Your task to perform on an android device: toggle show notifications on the lock screen Image 0: 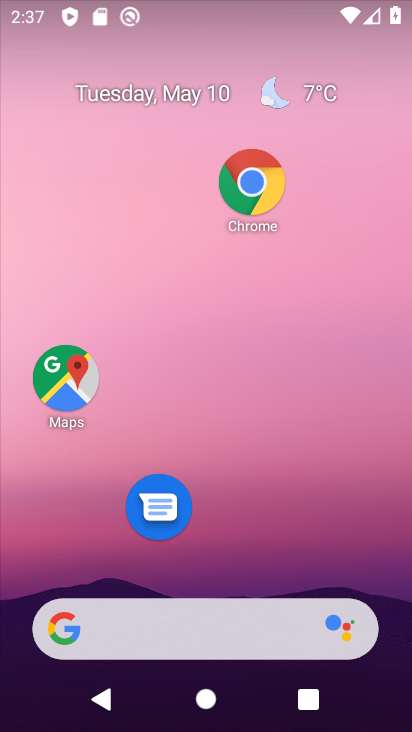
Step 0: drag from (347, 569) to (397, 158)
Your task to perform on an android device: toggle show notifications on the lock screen Image 1: 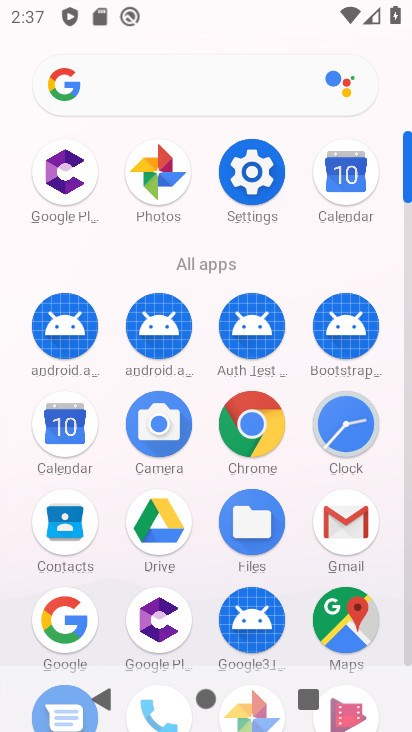
Step 1: click (244, 212)
Your task to perform on an android device: toggle show notifications on the lock screen Image 2: 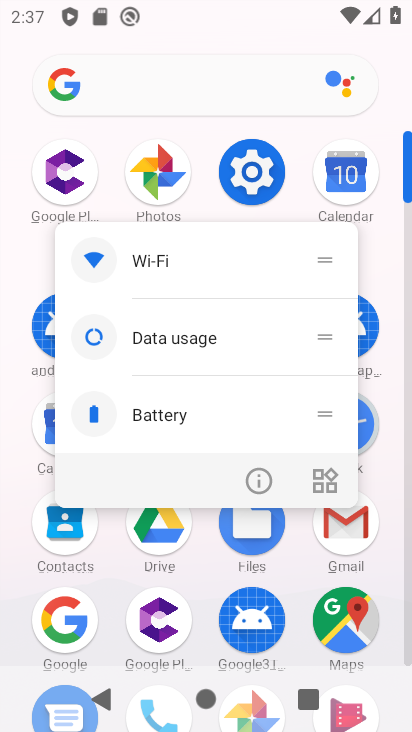
Step 2: click (241, 151)
Your task to perform on an android device: toggle show notifications on the lock screen Image 3: 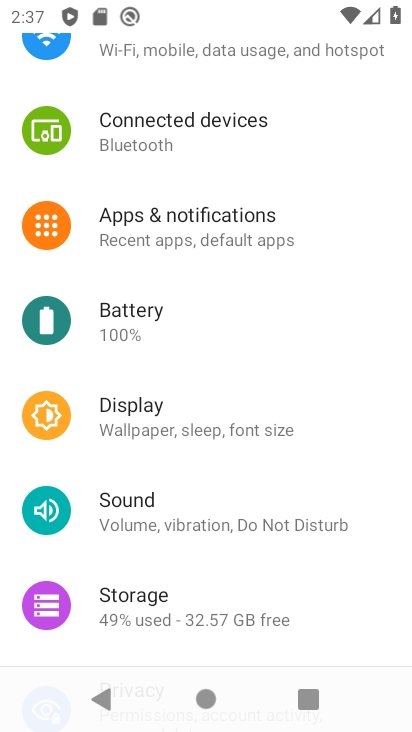
Step 3: click (176, 213)
Your task to perform on an android device: toggle show notifications on the lock screen Image 4: 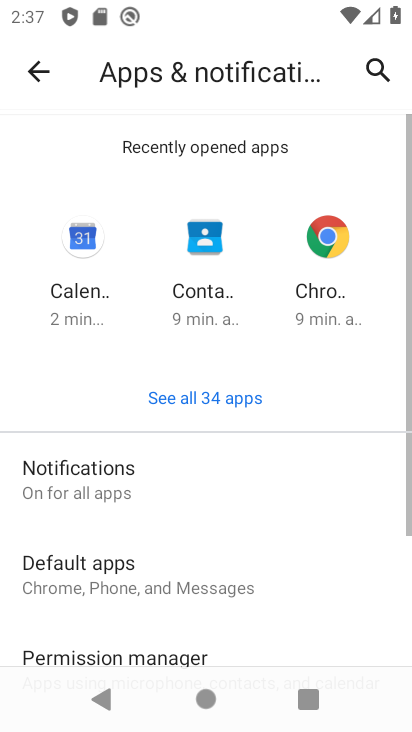
Step 4: click (189, 461)
Your task to perform on an android device: toggle show notifications on the lock screen Image 5: 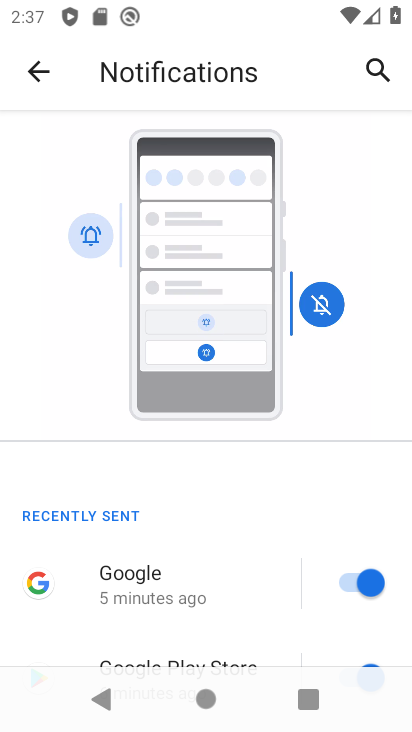
Step 5: drag from (248, 492) to (232, 198)
Your task to perform on an android device: toggle show notifications on the lock screen Image 6: 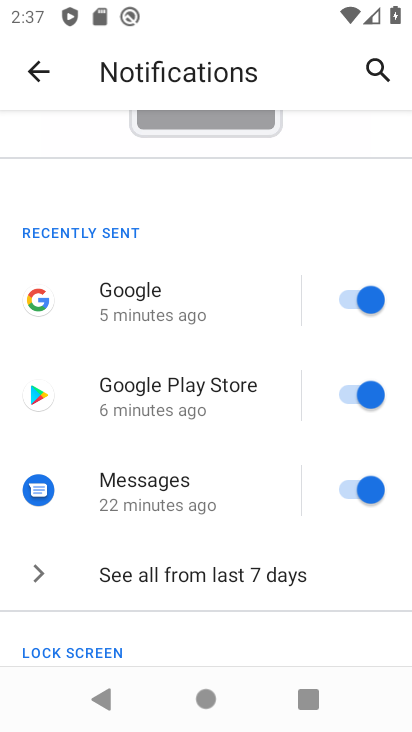
Step 6: click (231, 568)
Your task to perform on an android device: toggle show notifications on the lock screen Image 7: 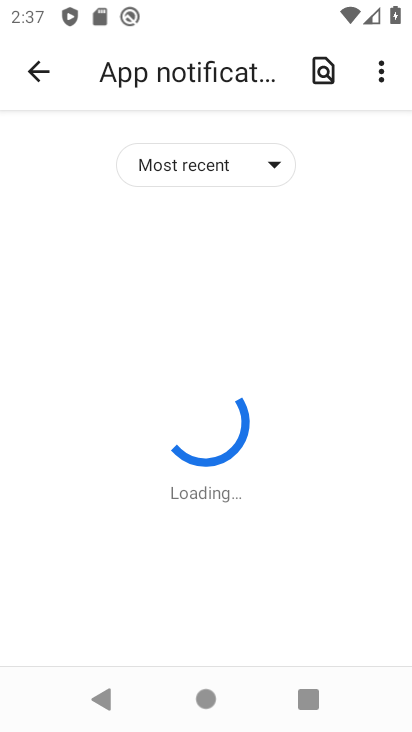
Step 7: drag from (231, 568) to (227, 300)
Your task to perform on an android device: toggle show notifications on the lock screen Image 8: 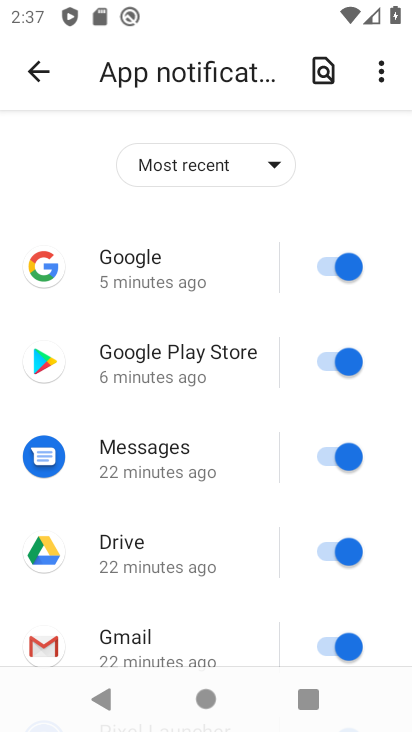
Step 8: drag from (198, 576) to (219, 161)
Your task to perform on an android device: toggle show notifications on the lock screen Image 9: 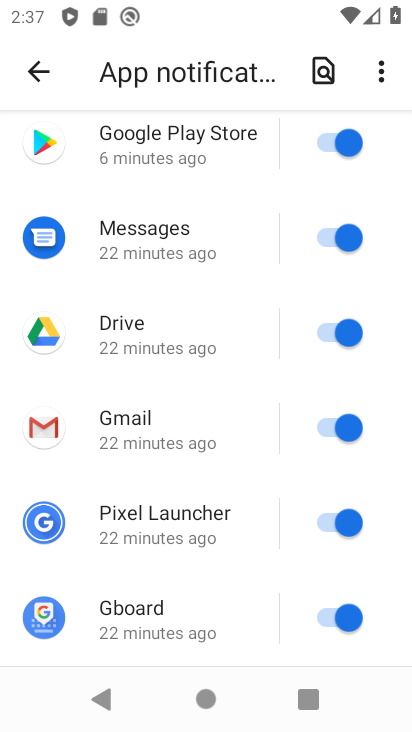
Step 9: click (42, 72)
Your task to perform on an android device: toggle show notifications on the lock screen Image 10: 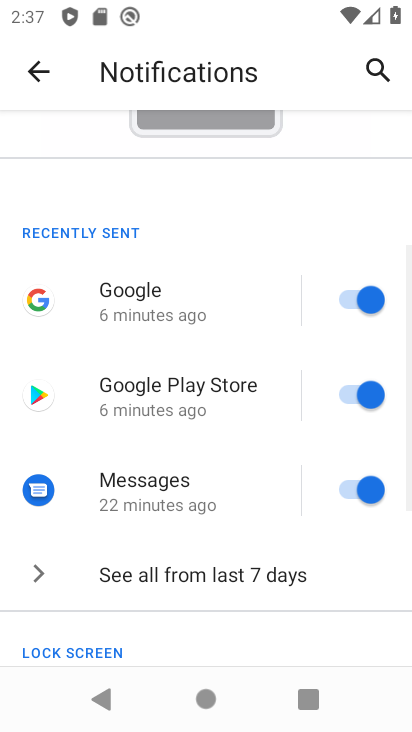
Step 10: drag from (147, 569) to (114, 281)
Your task to perform on an android device: toggle show notifications on the lock screen Image 11: 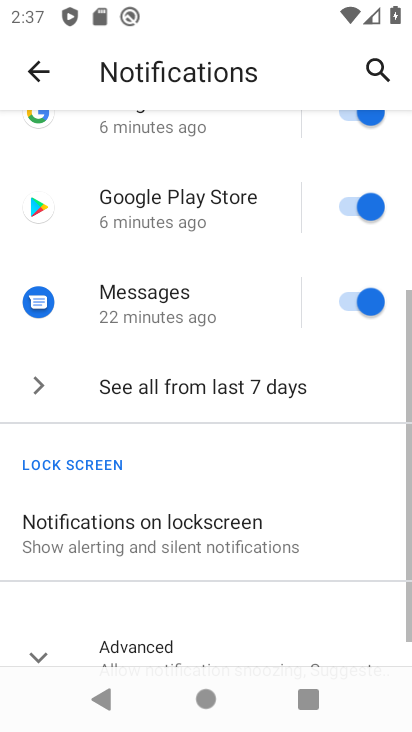
Step 11: click (114, 281)
Your task to perform on an android device: toggle show notifications on the lock screen Image 12: 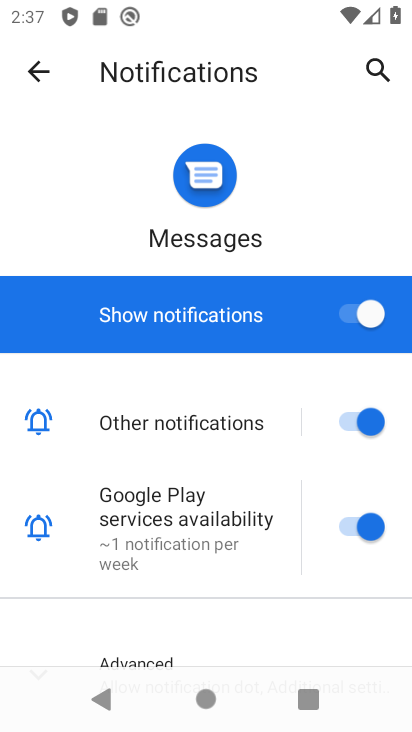
Step 12: click (23, 91)
Your task to perform on an android device: toggle show notifications on the lock screen Image 13: 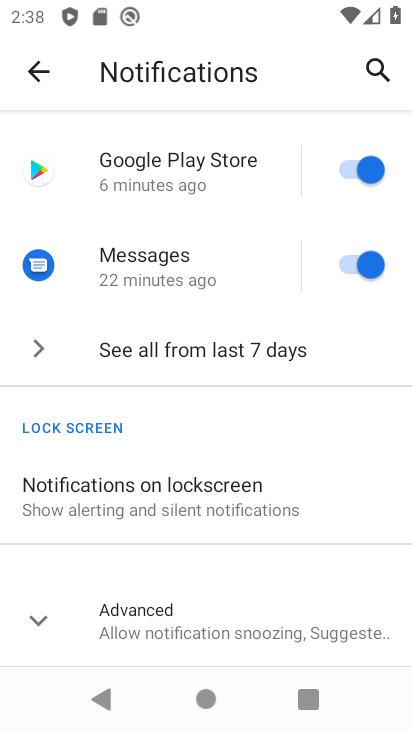
Step 13: click (166, 523)
Your task to perform on an android device: toggle show notifications on the lock screen Image 14: 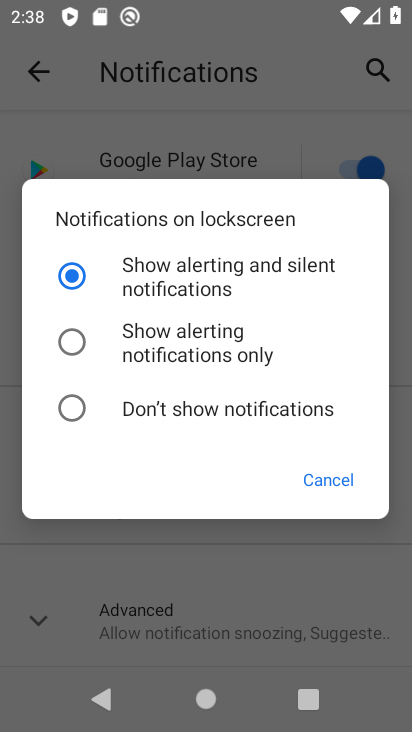
Step 14: click (157, 343)
Your task to perform on an android device: toggle show notifications on the lock screen Image 15: 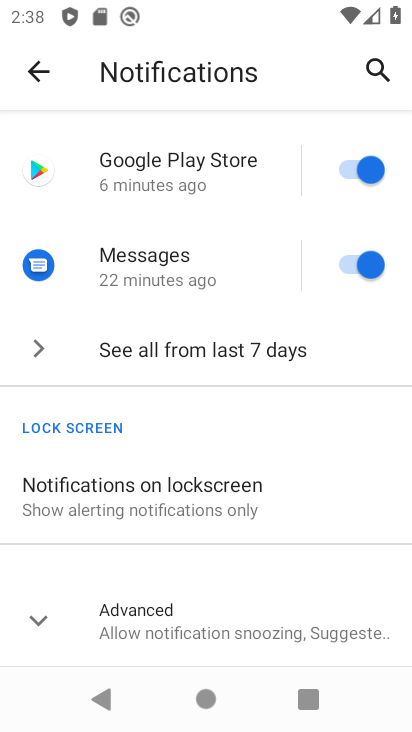
Step 15: task complete